Your task to perform on an android device: Open calendar and show me the third week of next month Image 0: 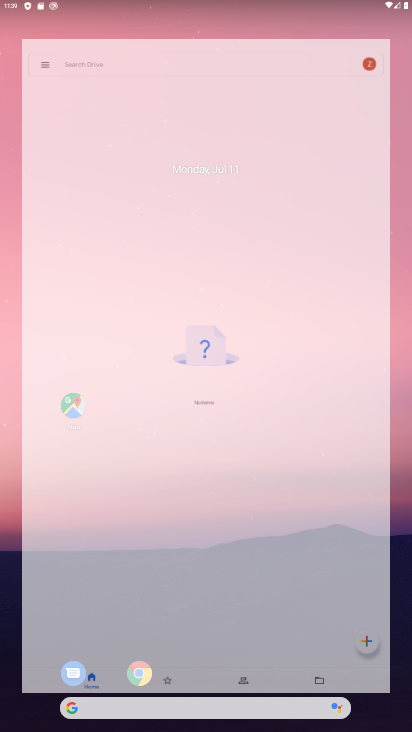
Step 0: press home button
Your task to perform on an android device: Open calendar and show me the third week of next month Image 1: 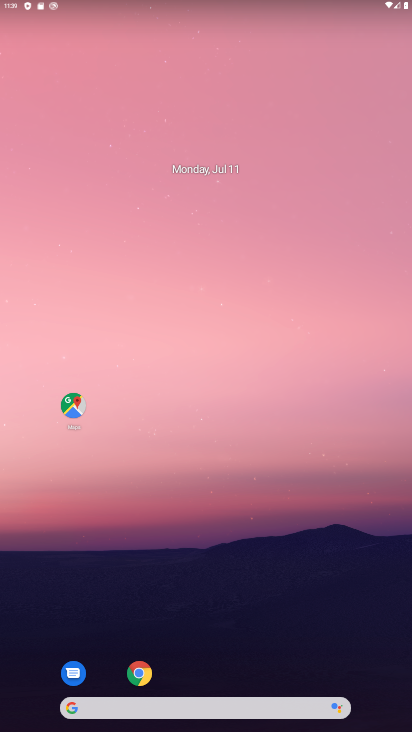
Step 1: drag from (213, 682) to (232, 48)
Your task to perform on an android device: Open calendar and show me the third week of next month Image 2: 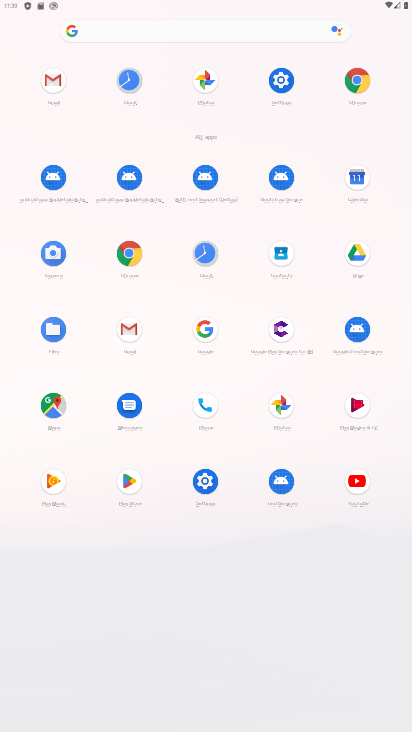
Step 2: click (350, 174)
Your task to perform on an android device: Open calendar and show me the third week of next month Image 3: 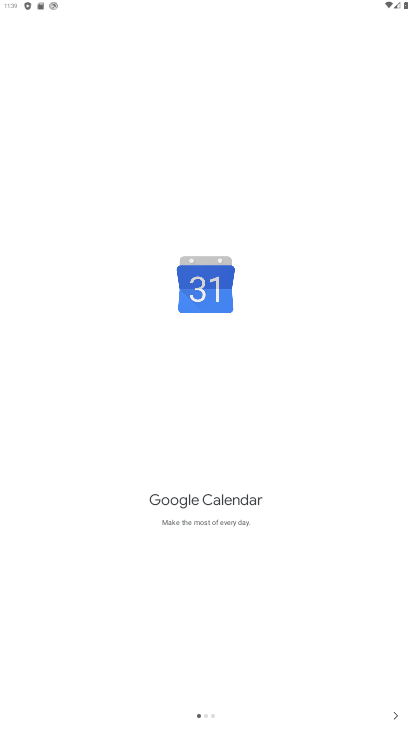
Step 3: click (392, 706)
Your task to perform on an android device: Open calendar and show me the third week of next month Image 4: 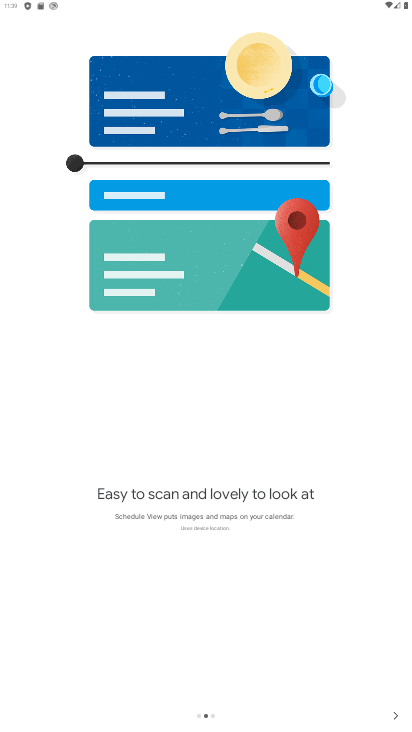
Step 4: click (394, 713)
Your task to perform on an android device: Open calendar and show me the third week of next month Image 5: 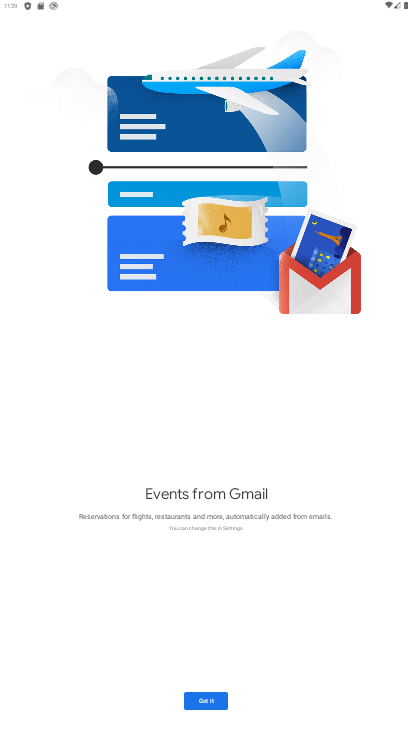
Step 5: click (207, 703)
Your task to perform on an android device: Open calendar and show me the third week of next month Image 6: 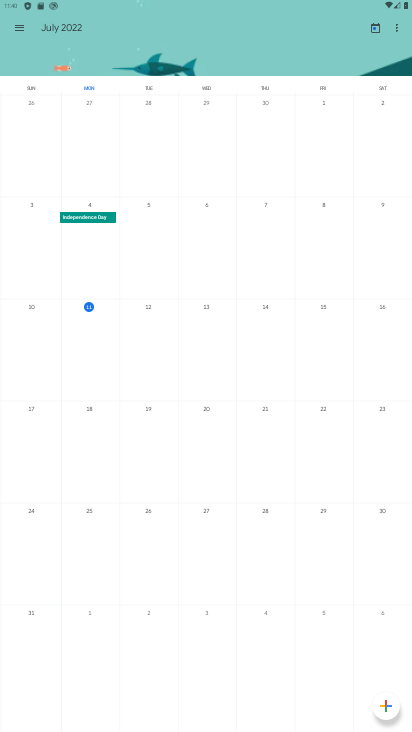
Step 6: drag from (364, 517) to (14, 533)
Your task to perform on an android device: Open calendar and show me the third week of next month Image 7: 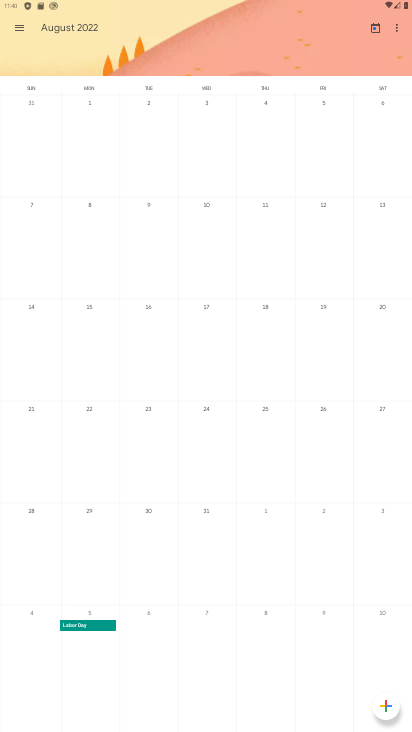
Step 7: click (29, 325)
Your task to perform on an android device: Open calendar and show me the third week of next month Image 8: 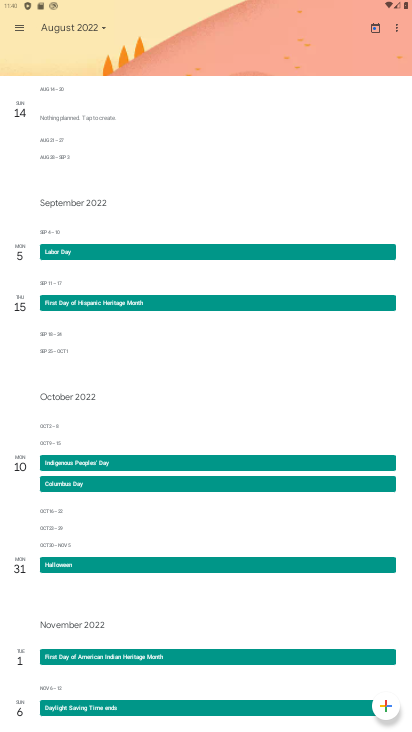
Step 8: task complete